Your task to perform on an android device: check data usage Image 0: 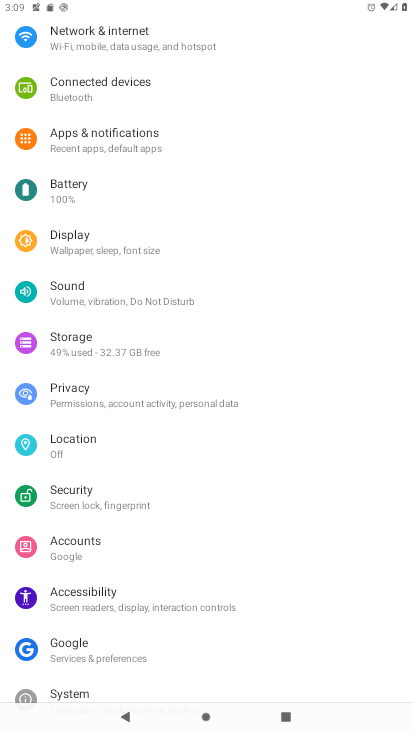
Step 0: click (173, 51)
Your task to perform on an android device: check data usage Image 1: 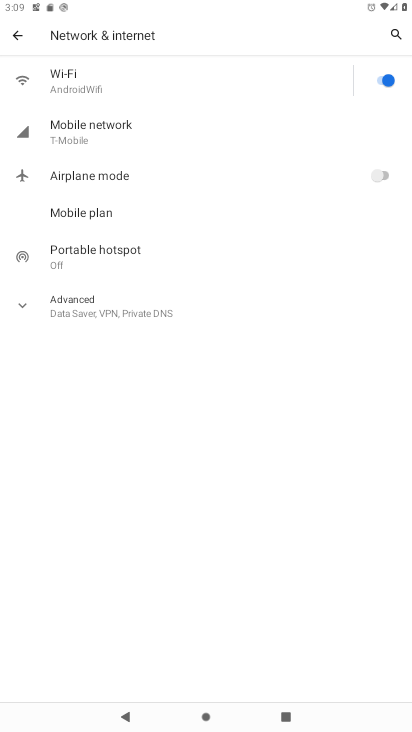
Step 1: click (124, 138)
Your task to perform on an android device: check data usage Image 2: 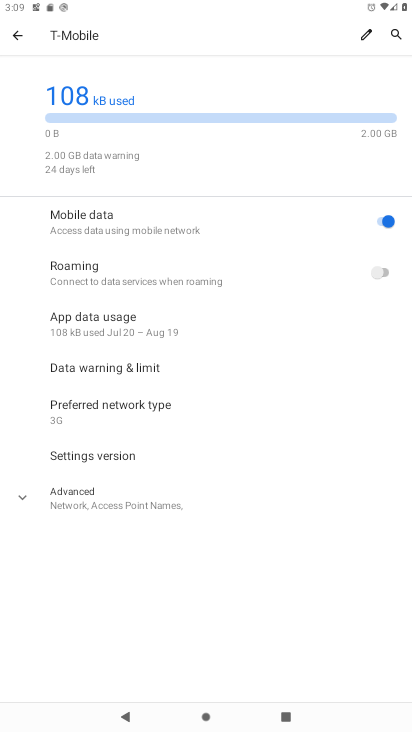
Step 2: click (92, 329)
Your task to perform on an android device: check data usage Image 3: 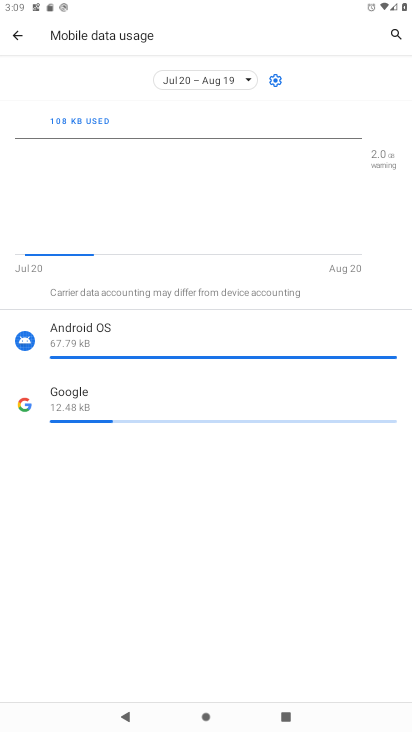
Step 3: task complete